Your task to perform on an android device: Empty the shopping cart on walmart. Search for "beats solo 3" on walmart, select the first entry, and add it to the cart. Image 0: 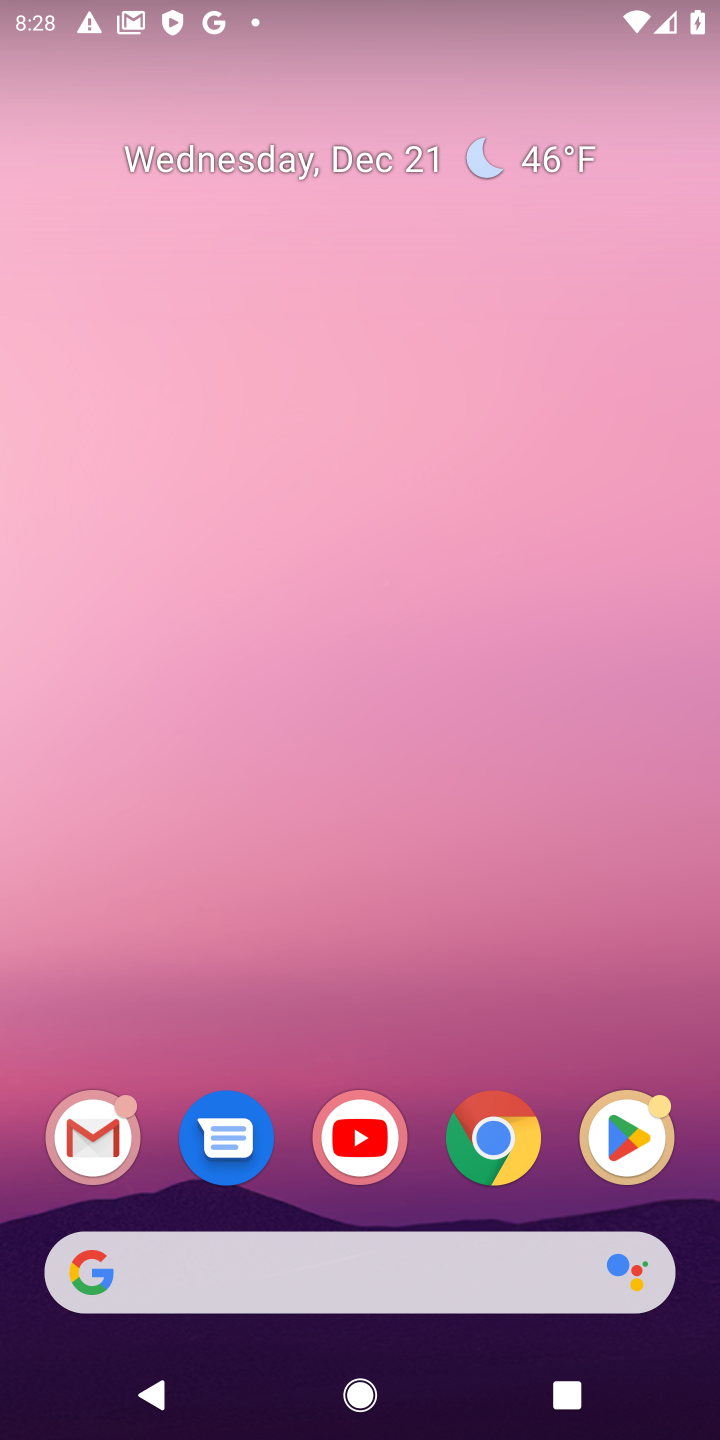
Step 0: click (484, 1138)
Your task to perform on an android device: Empty the shopping cart on walmart. Search for "beats solo 3" on walmart, select the first entry, and add it to the cart. Image 1: 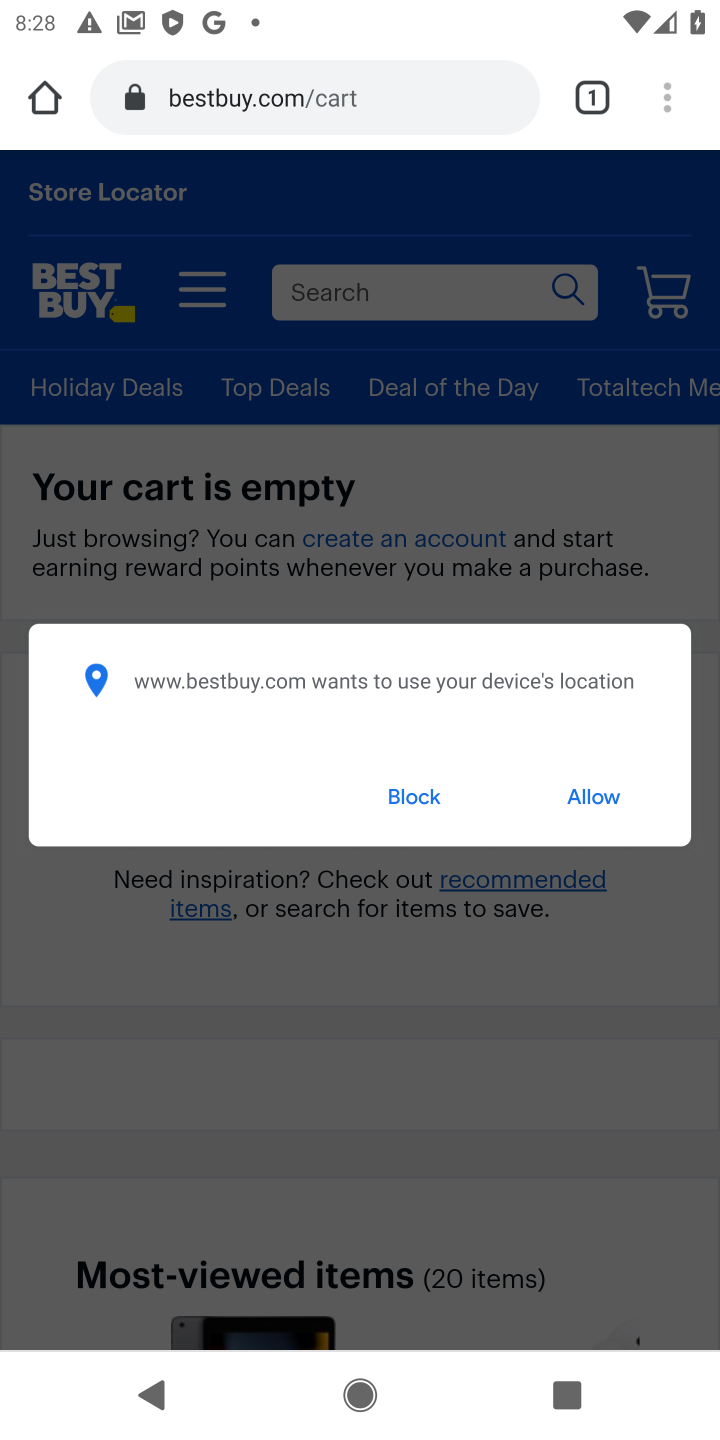
Step 1: click (396, 788)
Your task to perform on an android device: Empty the shopping cart on walmart. Search for "beats solo 3" on walmart, select the first entry, and add it to the cart. Image 2: 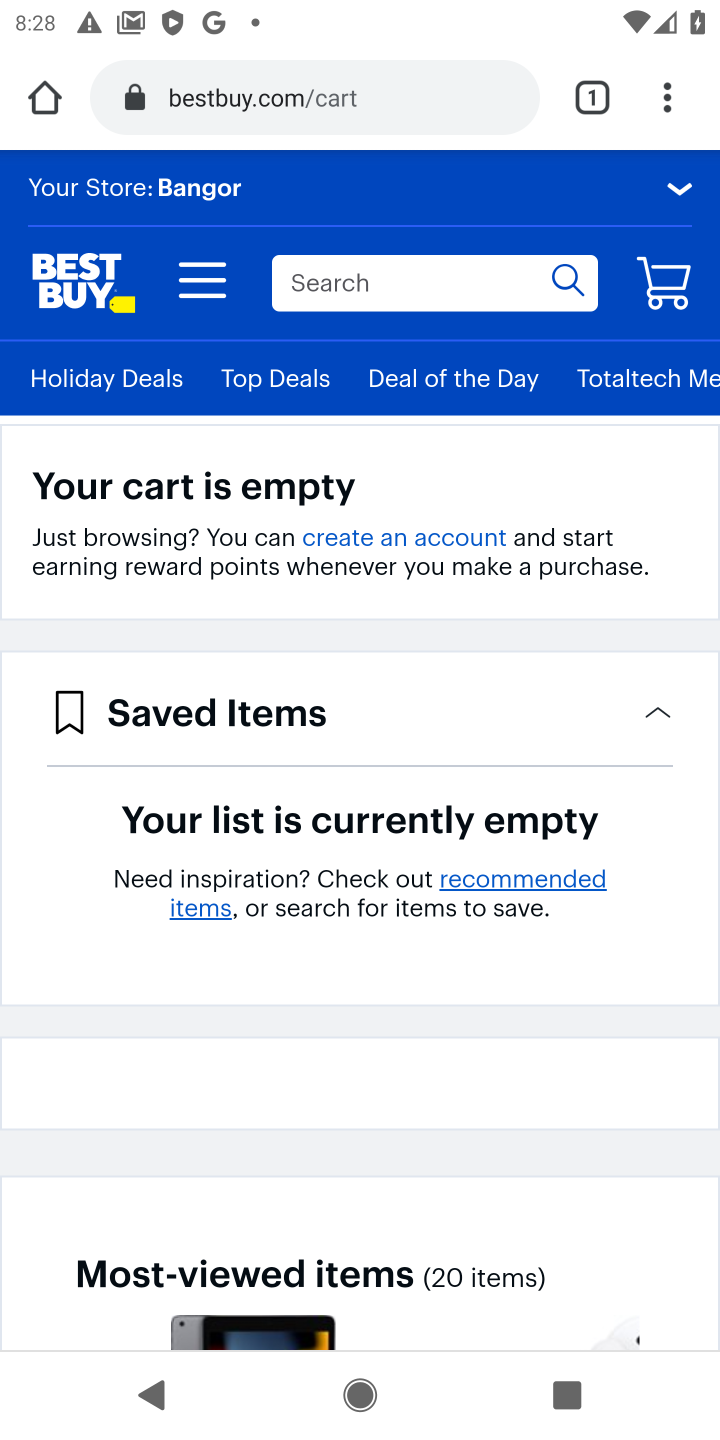
Step 2: click (216, 104)
Your task to perform on an android device: Empty the shopping cart on walmart. Search for "beats solo 3" on walmart, select the first entry, and add it to the cart. Image 3: 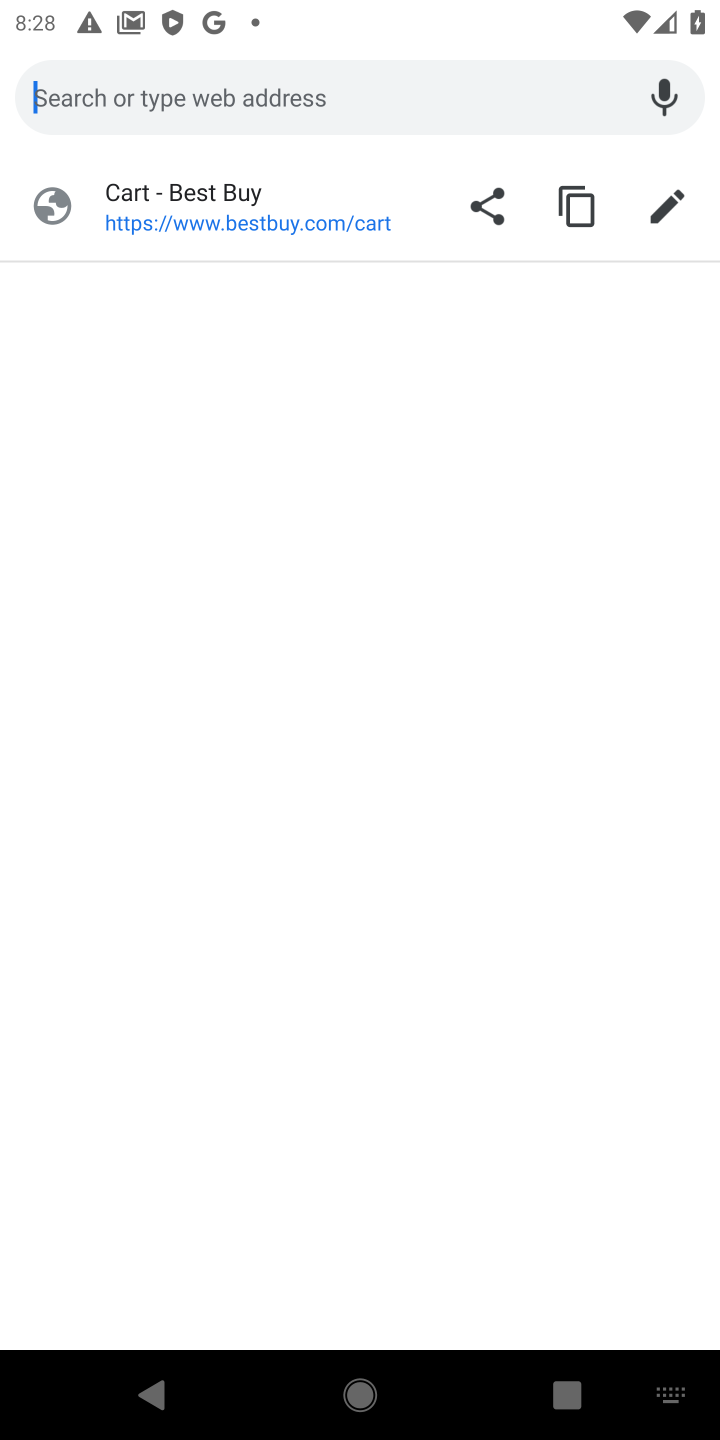
Step 3: type "walmart.com"
Your task to perform on an android device: Empty the shopping cart on walmart. Search for "beats solo 3" on walmart, select the first entry, and add it to the cart. Image 4: 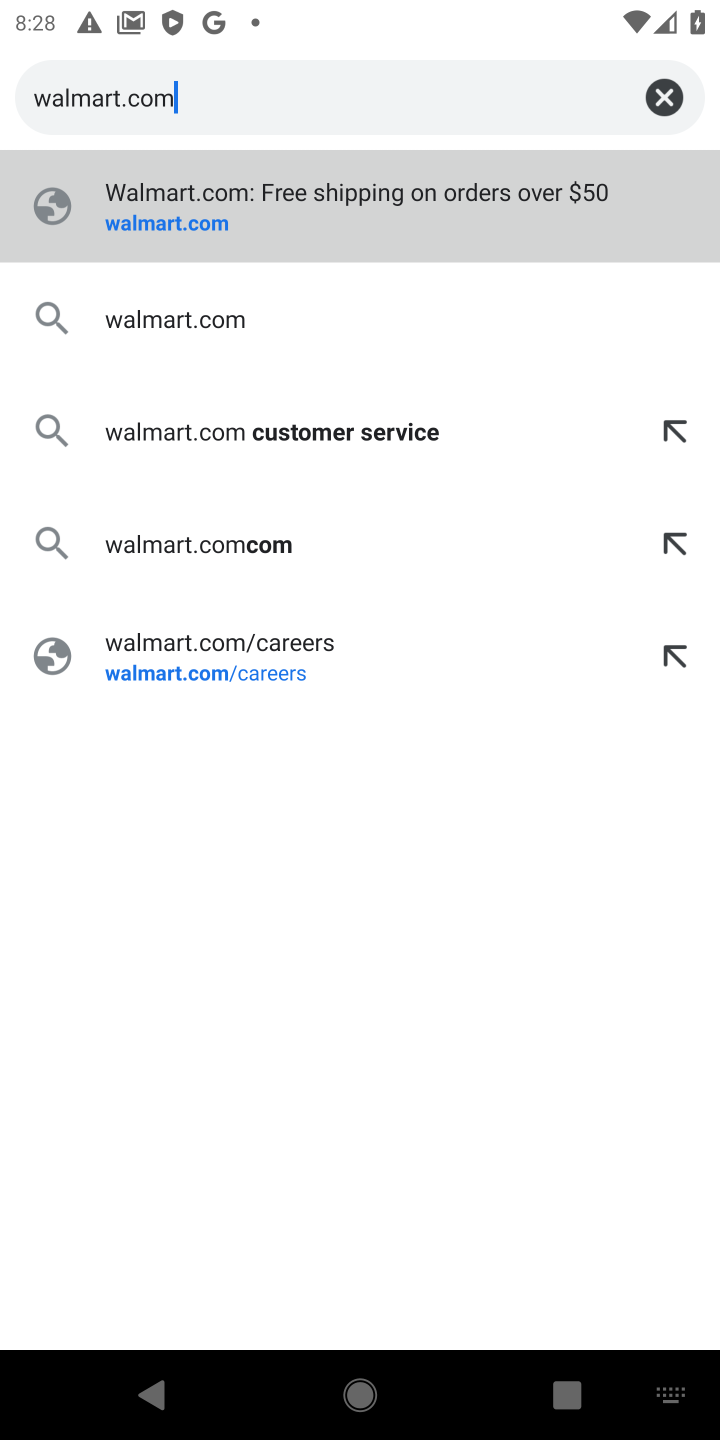
Step 4: click (168, 219)
Your task to perform on an android device: Empty the shopping cart on walmart. Search for "beats solo 3" on walmart, select the first entry, and add it to the cart. Image 5: 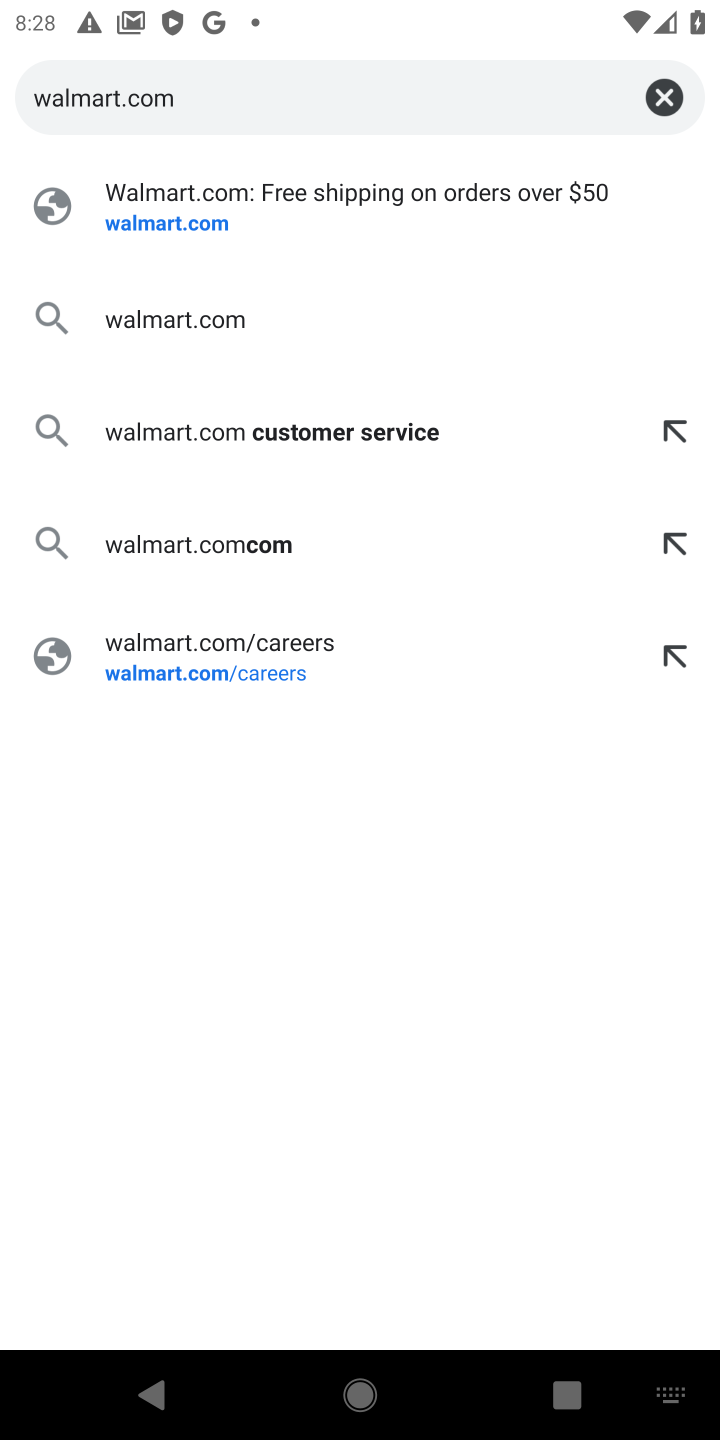
Step 5: click (140, 236)
Your task to perform on an android device: Empty the shopping cart on walmart. Search for "beats solo 3" on walmart, select the first entry, and add it to the cart. Image 6: 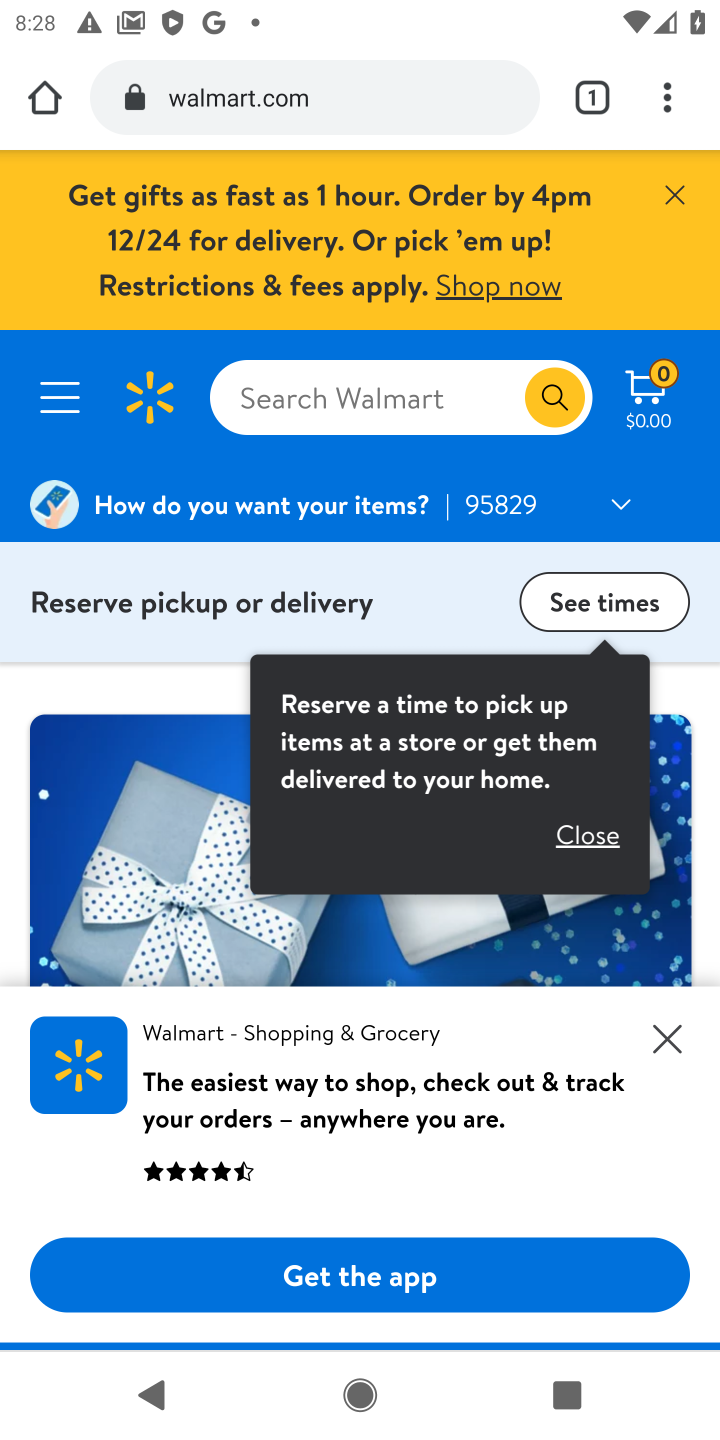
Step 6: click (654, 406)
Your task to perform on an android device: Empty the shopping cart on walmart. Search for "beats solo 3" on walmart, select the first entry, and add it to the cart. Image 7: 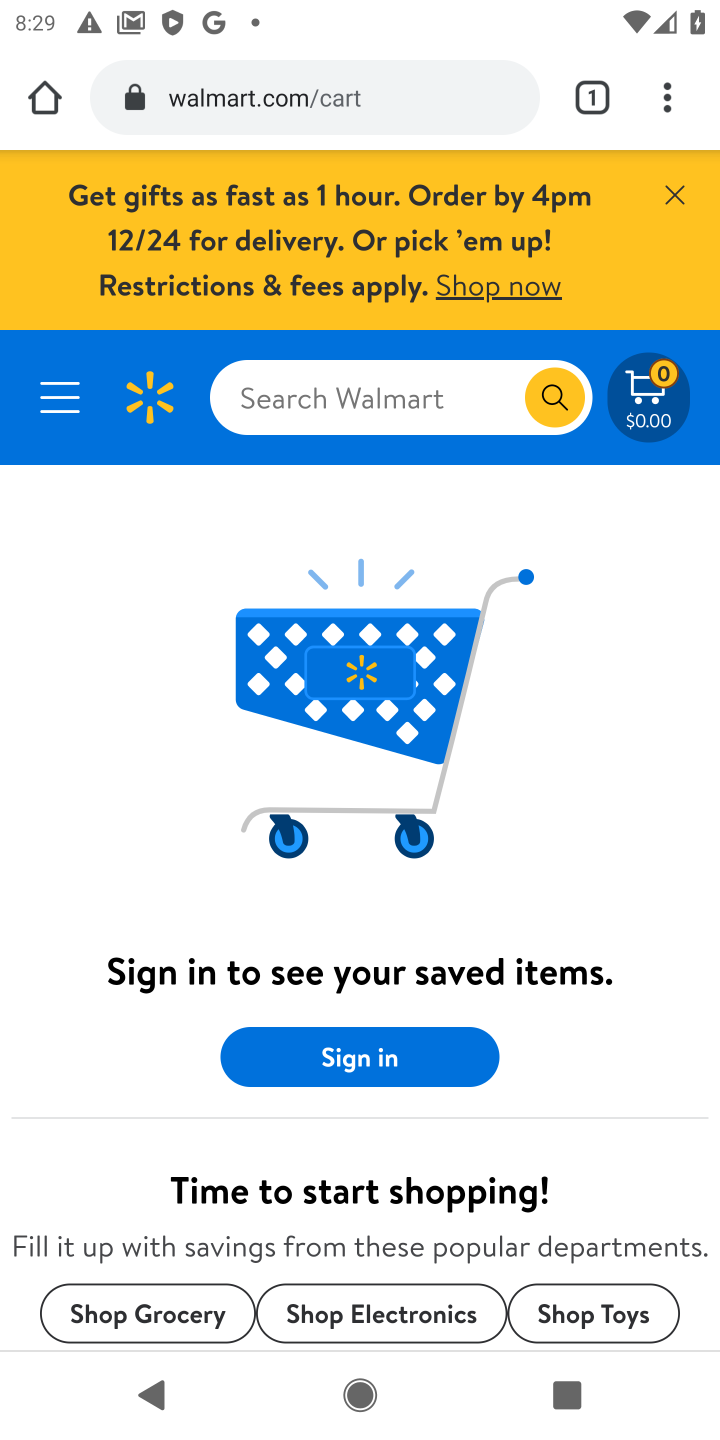
Step 7: click (283, 399)
Your task to perform on an android device: Empty the shopping cart on walmart. Search for "beats solo 3" on walmart, select the first entry, and add it to the cart. Image 8: 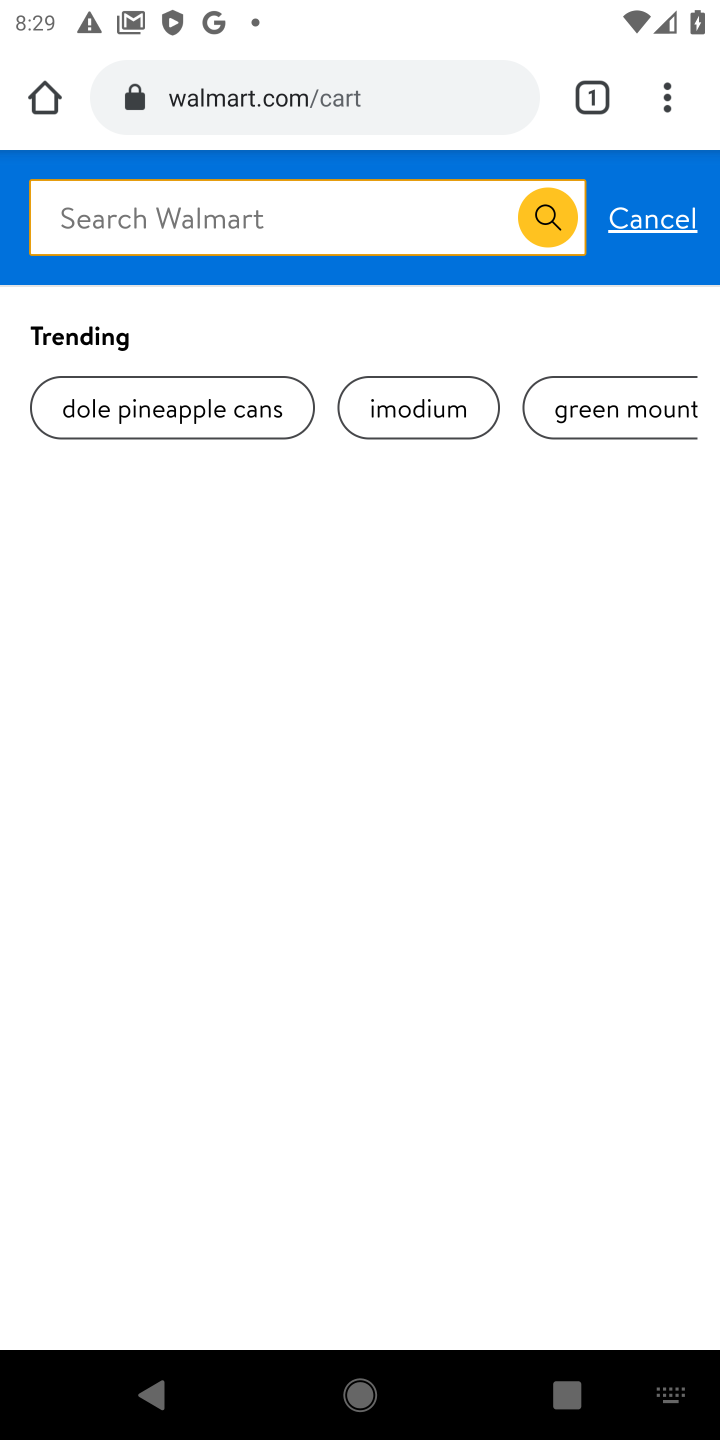
Step 8: type "beats solo 3"
Your task to perform on an android device: Empty the shopping cart on walmart. Search for "beats solo 3" on walmart, select the first entry, and add it to the cart. Image 9: 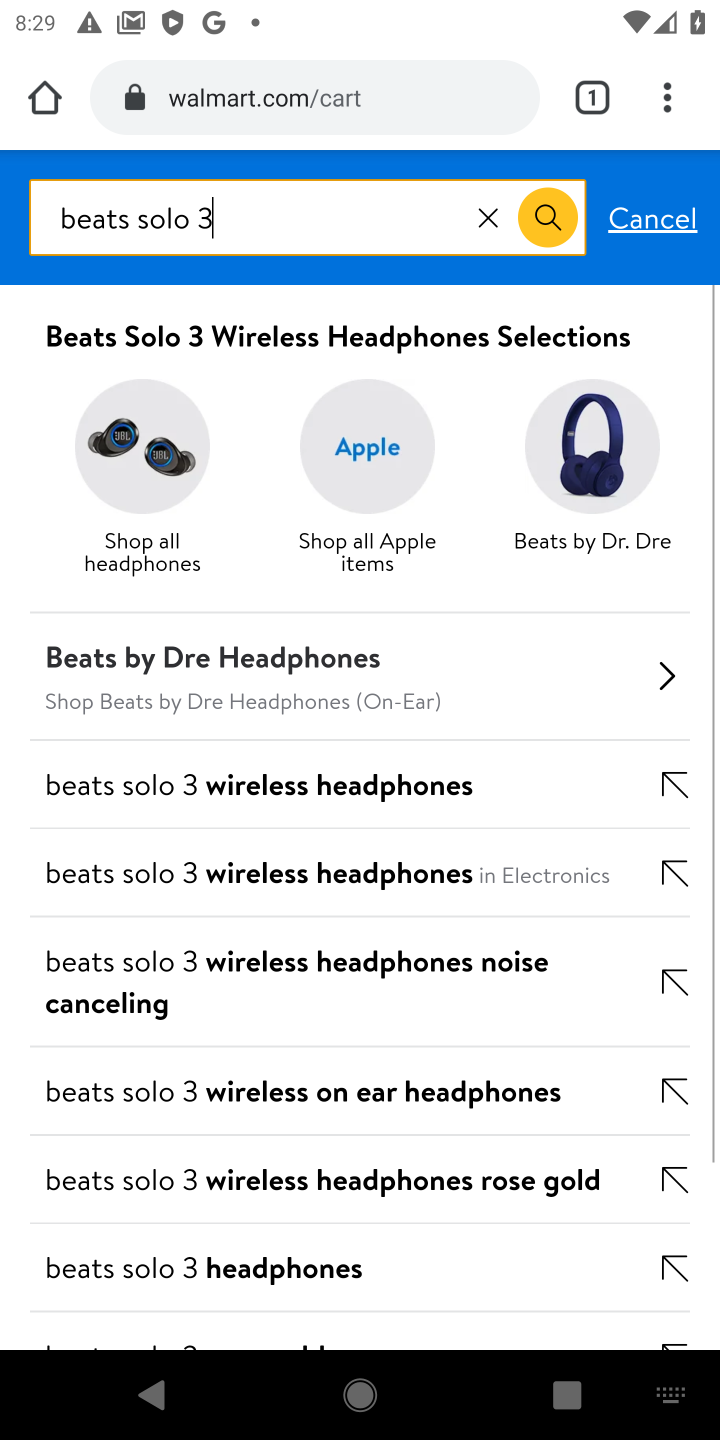
Step 9: click (547, 219)
Your task to perform on an android device: Empty the shopping cart on walmart. Search for "beats solo 3" on walmart, select the first entry, and add it to the cart. Image 10: 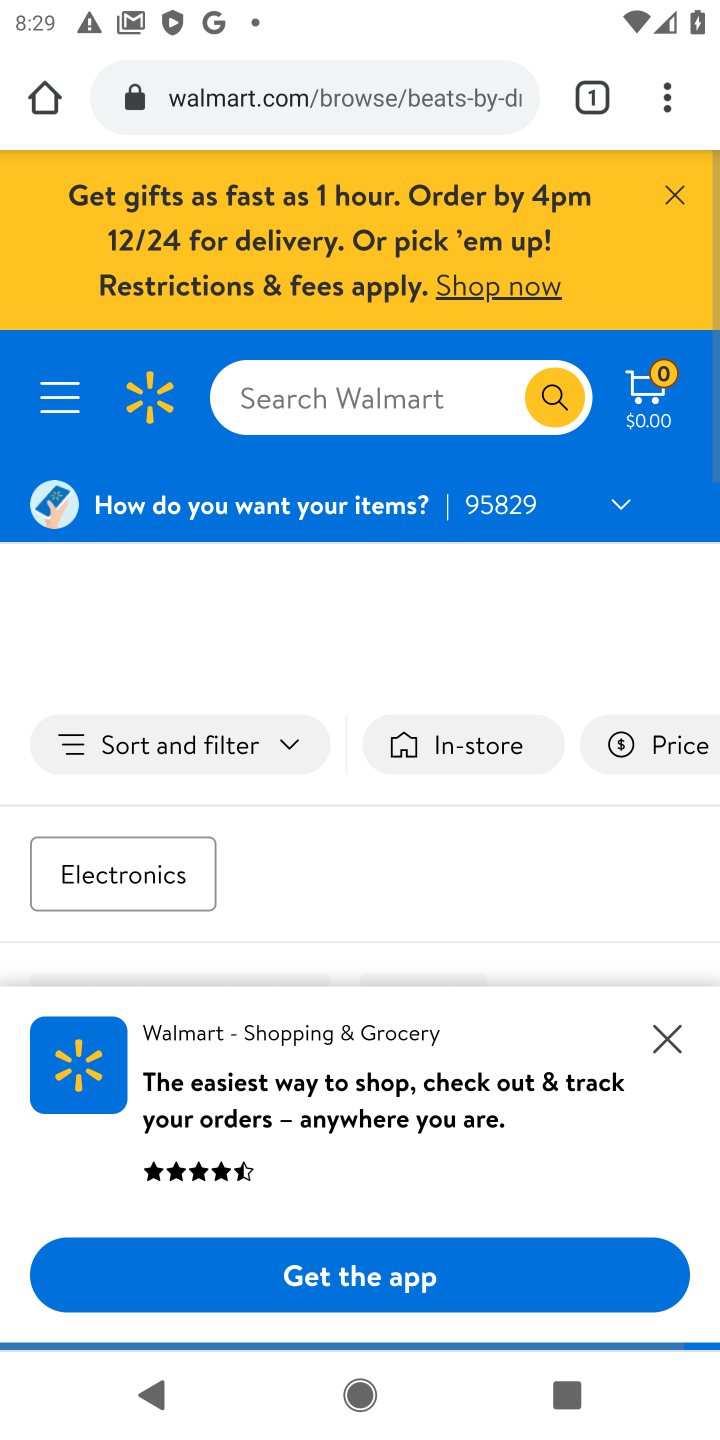
Step 10: drag from (303, 1027) to (303, 498)
Your task to perform on an android device: Empty the shopping cart on walmart. Search for "beats solo 3" on walmart, select the first entry, and add it to the cart. Image 11: 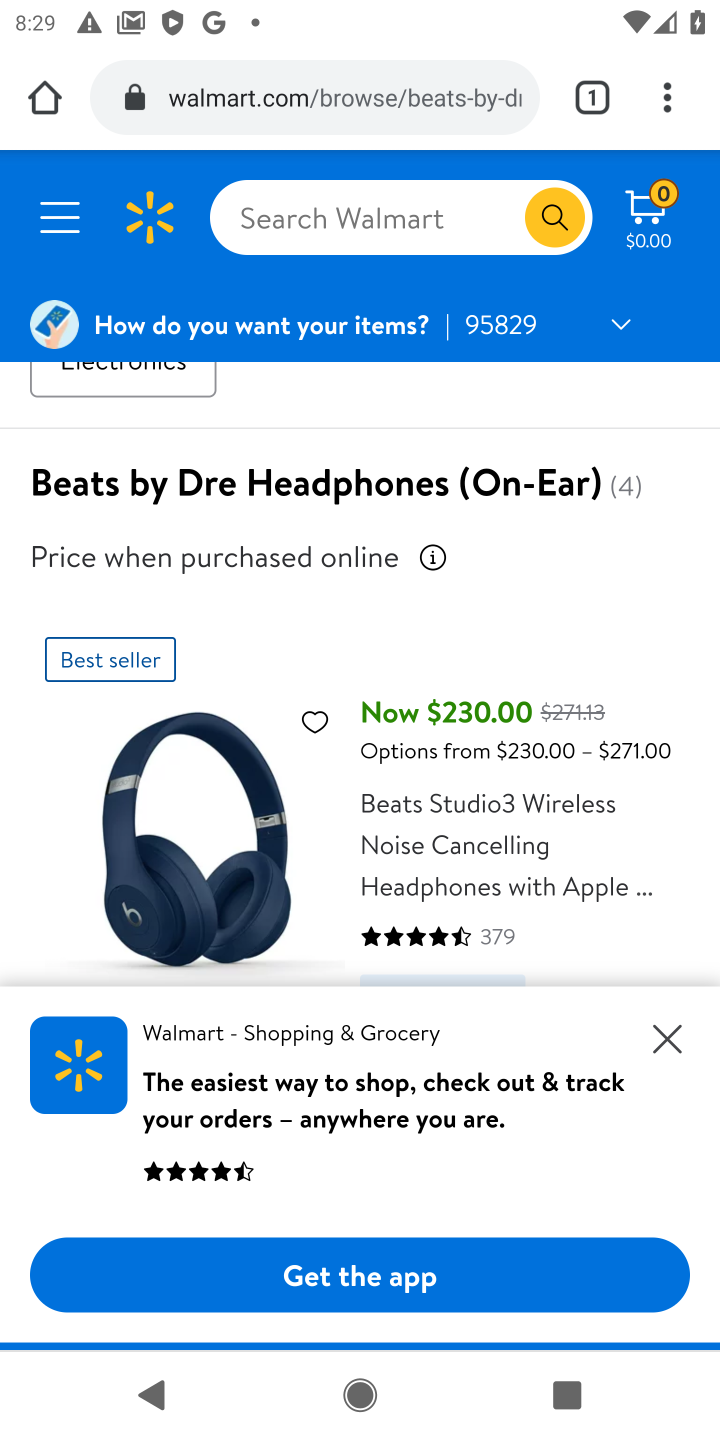
Step 11: click (657, 1043)
Your task to perform on an android device: Empty the shopping cart on walmart. Search for "beats solo 3" on walmart, select the first entry, and add it to the cart. Image 12: 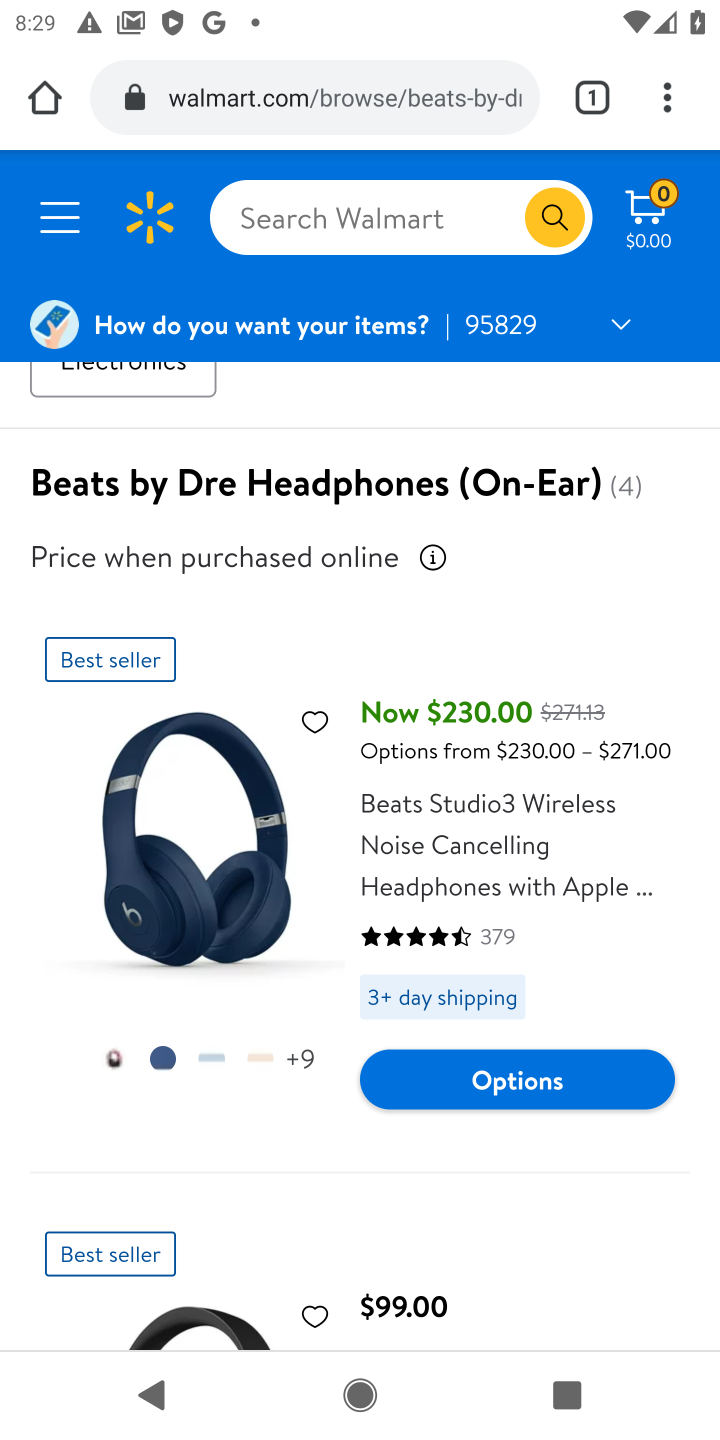
Step 12: task complete